Your task to perform on an android device: open a bookmark in the chrome app Image 0: 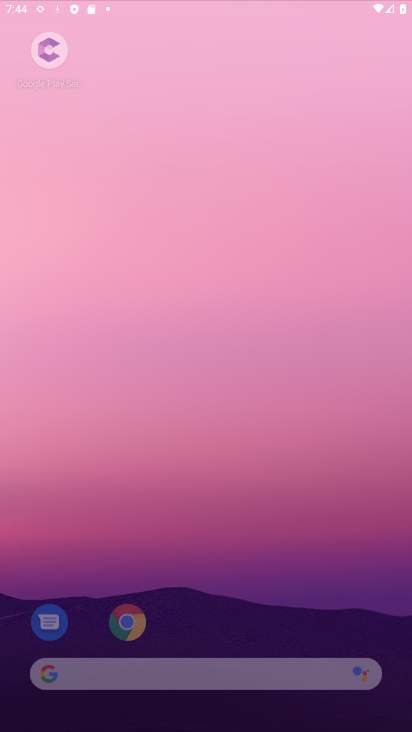
Step 0: click (117, 82)
Your task to perform on an android device: open a bookmark in the chrome app Image 1: 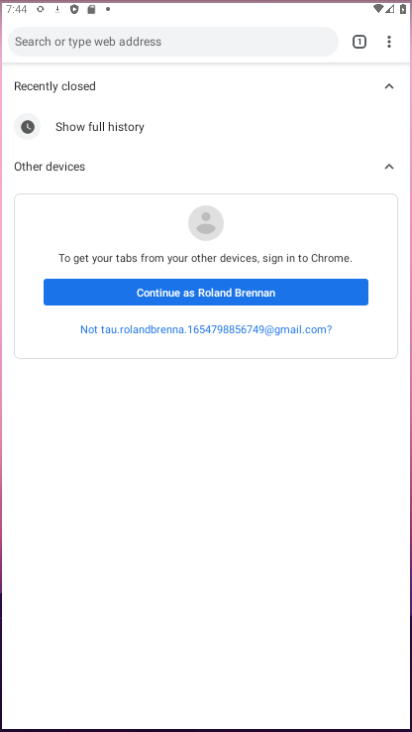
Step 1: click (228, 180)
Your task to perform on an android device: open a bookmark in the chrome app Image 2: 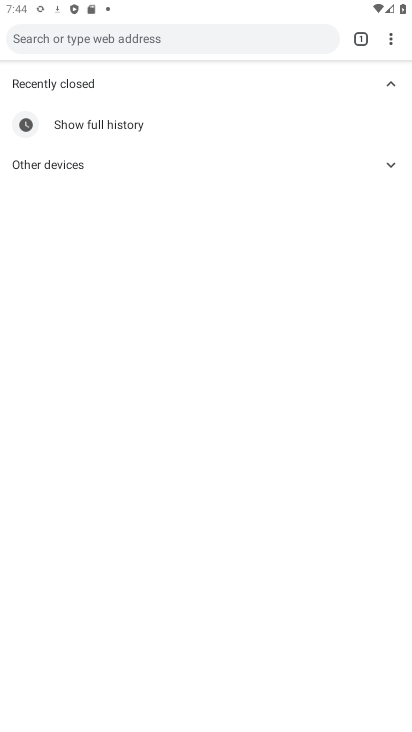
Step 2: task complete